Your task to perform on an android device: change notification settings in the gmail app Image 0: 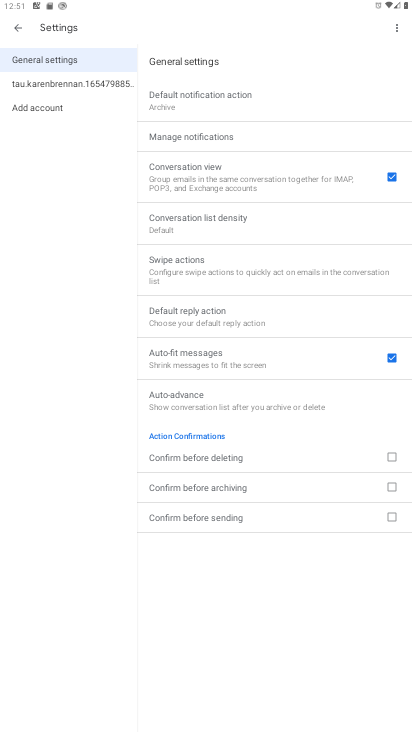
Step 0: click (65, 87)
Your task to perform on an android device: change notification settings in the gmail app Image 1: 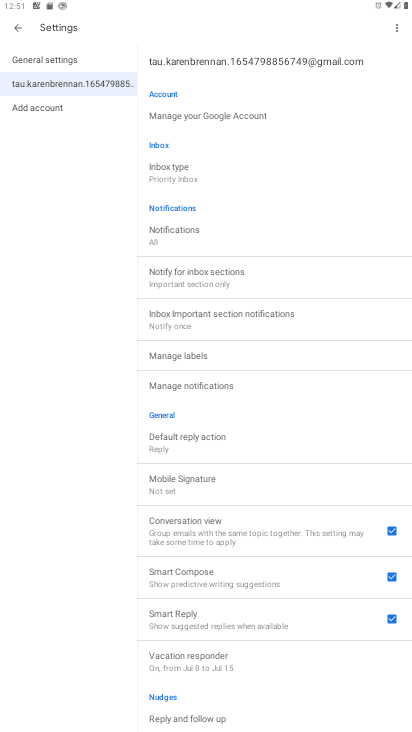
Step 1: click (173, 393)
Your task to perform on an android device: change notification settings in the gmail app Image 2: 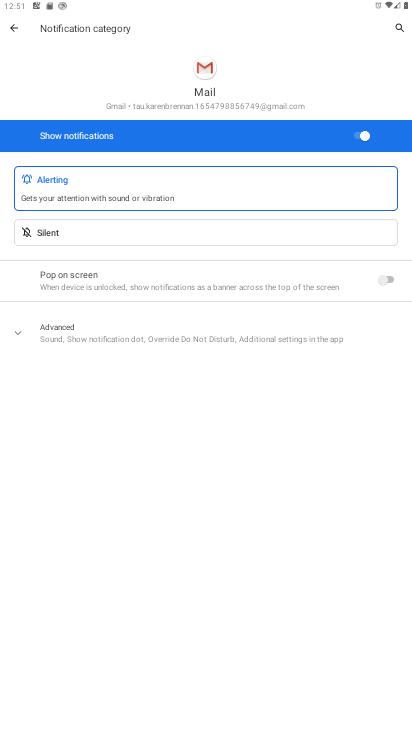
Step 2: click (356, 137)
Your task to perform on an android device: change notification settings in the gmail app Image 3: 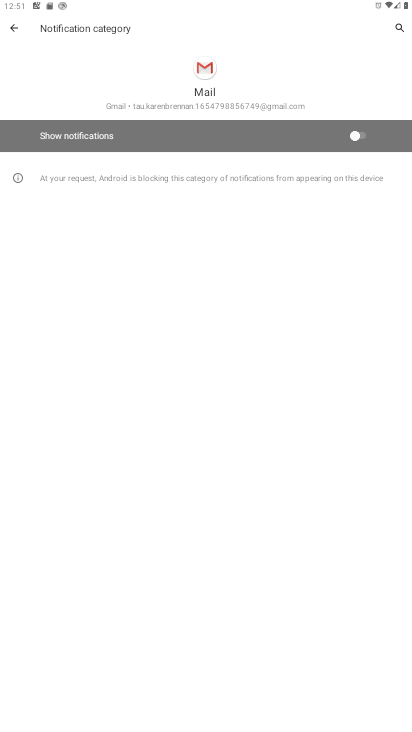
Step 3: task complete